Your task to perform on an android device: check data usage Image 0: 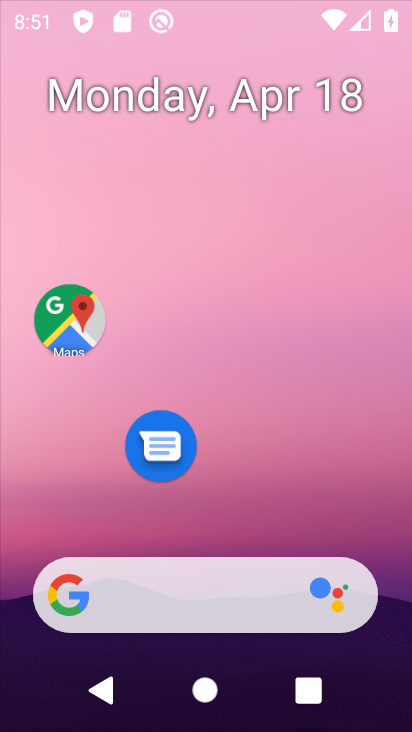
Step 0: press home button
Your task to perform on an android device: check data usage Image 1: 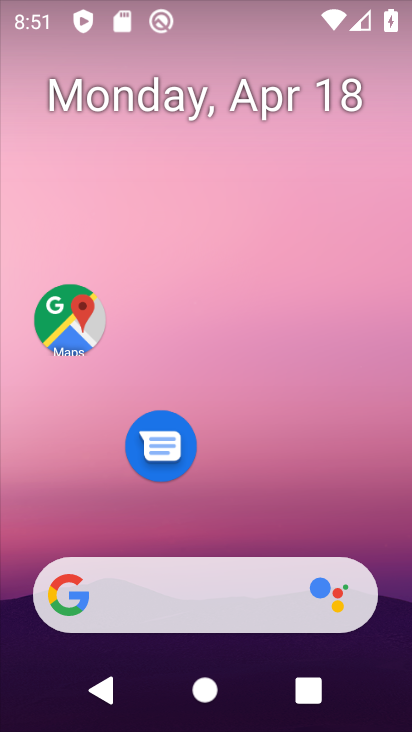
Step 1: drag from (219, 501) to (227, 0)
Your task to perform on an android device: check data usage Image 2: 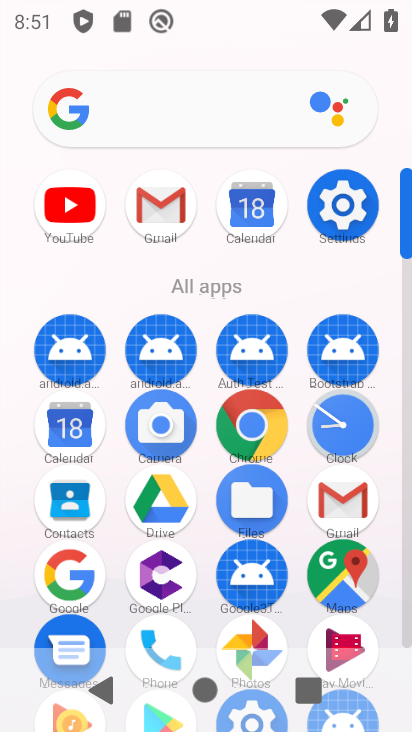
Step 2: click (338, 197)
Your task to perform on an android device: check data usage Image 3: 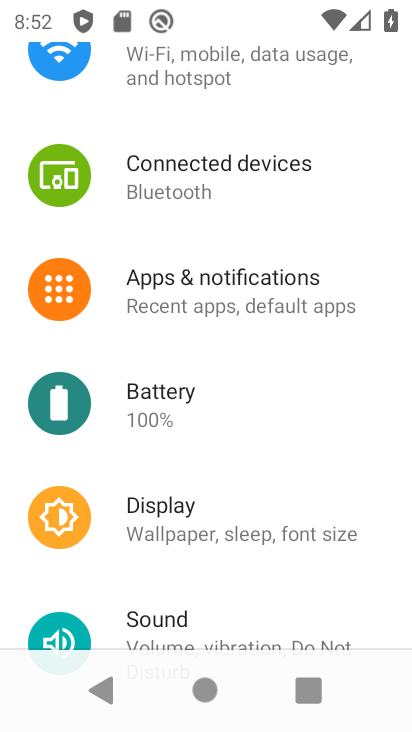
Step 3: click (221, 68)
Your task to perform on an android device: check data usage Image 4: 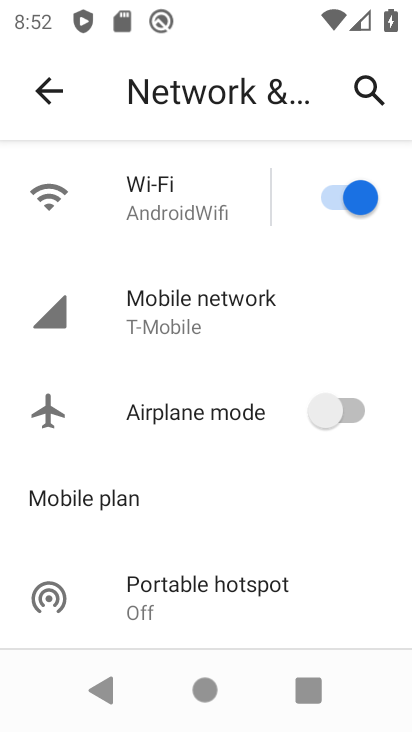
Step 4: click (210, 320)
Your task to perform on an android device: check data usage Image 5: 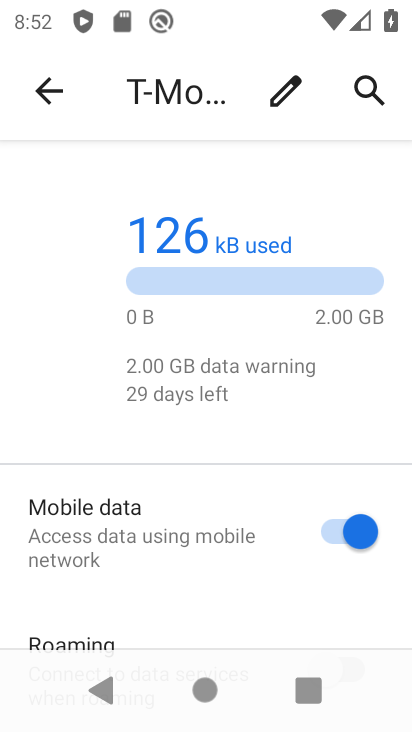
Step 5: drag from (160, 601) to (198, 205)
Your task to perform on an android device: check data usage Image 6: 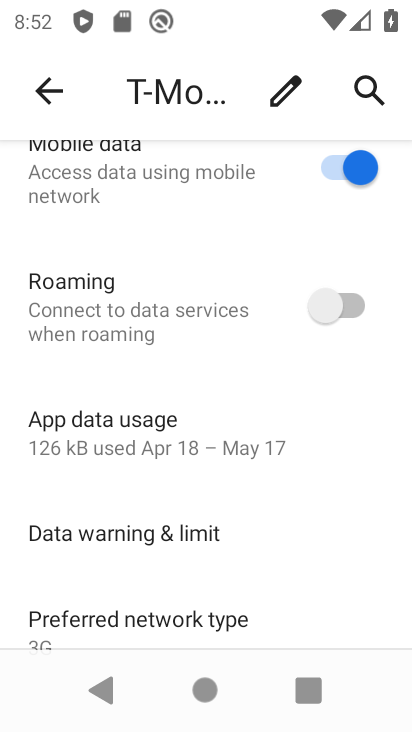
Step 6: click (197, 420)
Your task to perform on an android device: check data usage Image 7: 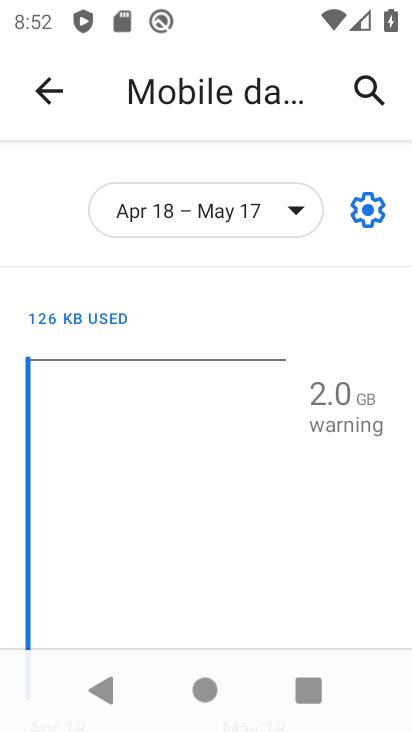
Step 7: task complete